Your task to perform on an android device: Open the map Image 0: 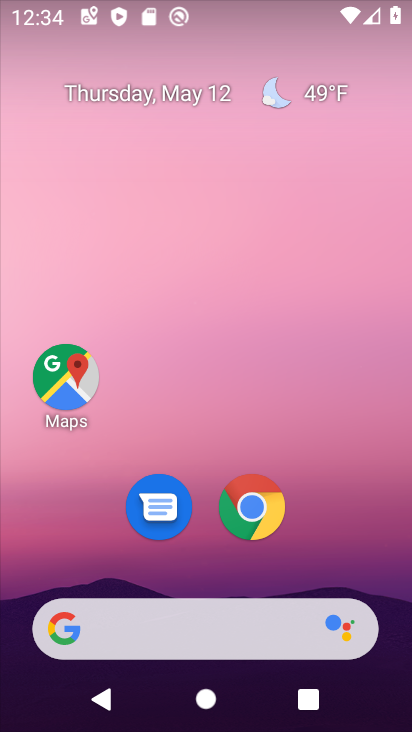
Step 0: drag from (223, 577) to (189, 21)
Your task to perform on an android device: Open the map Image 1: 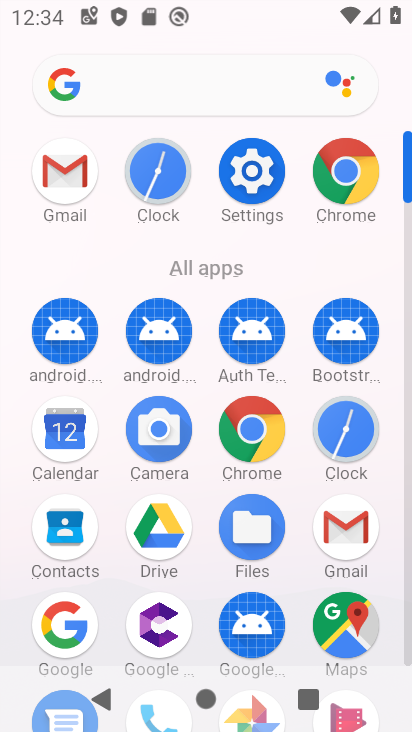
Step 1: click (346, 637)
Your task to perform on an android device: Open the map Image 2: 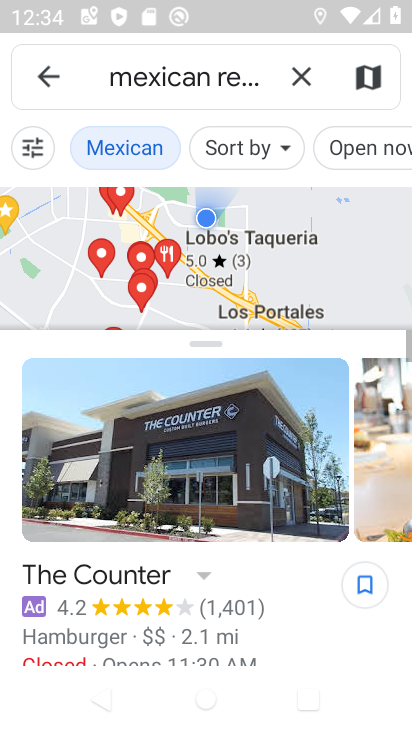
Step 2: click (45, 72)
Your task to perform on an android device: Open the map Image 3: 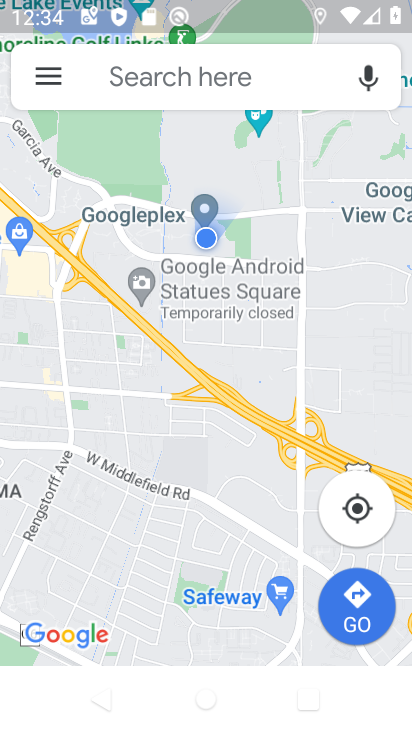
Step 3: task complete